Your task to perform on an android device: Open calendar and show me the first week of next month Image 0: 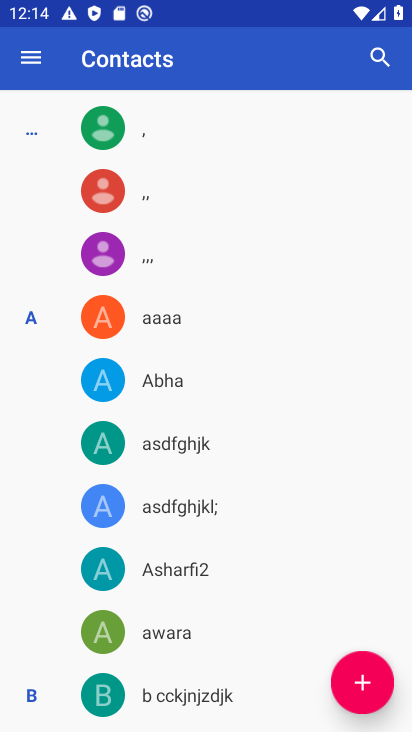
Step 0: press home button
Your task to perform on an android device: Open calendar and show me the first week of next month Image 1: 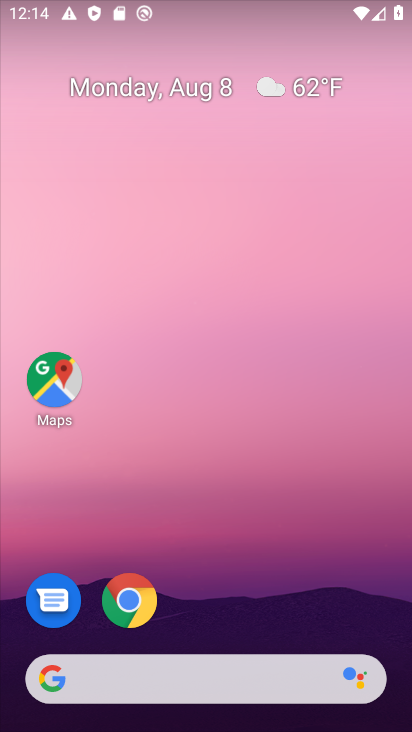
Step 1: drag from (220, 594) to (219, 253)
Your task to perform on an android device: Open calendar and show me the first week of next month Image 2: 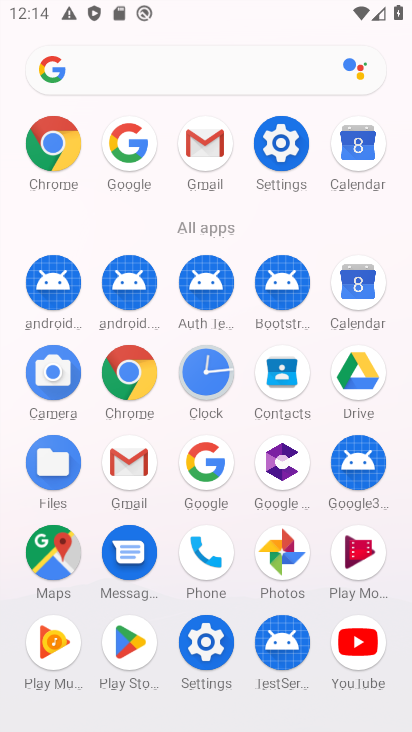
Step 2: click (355, 298)
Your task to perform on an android device: Open calendar and show me the first week of next month Image 3: 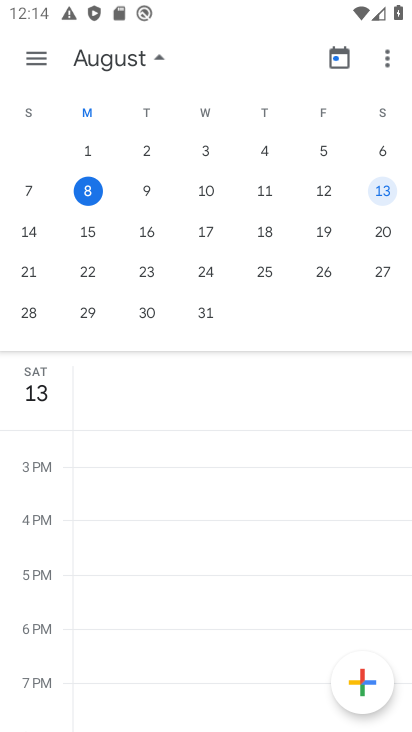
Step 3: drag from (342, 190) to (17, 206)
Your task to perform on an android device: Open calendar and show me the first week of next month Image 4: 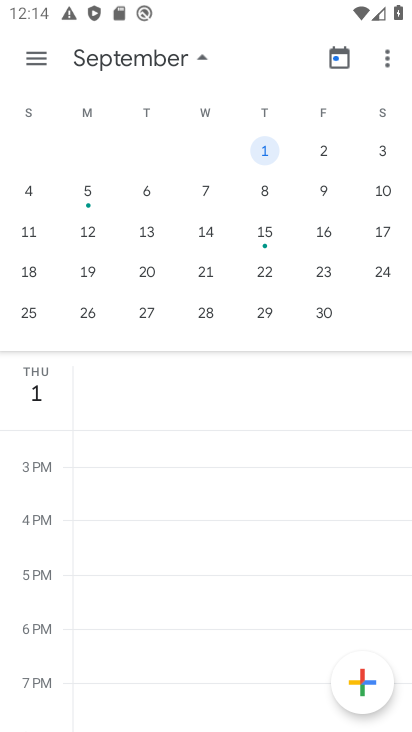
Step 4: click (253, 158)
Your task to perform on an android device: Open calendar and show me the first week of next month Image 5: 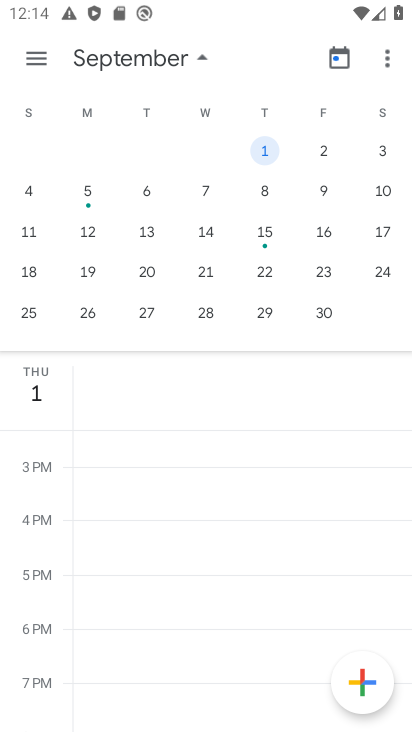
Step 5: task complete